Your task to perform on an android device: toggle improve location accuracy Image 0: 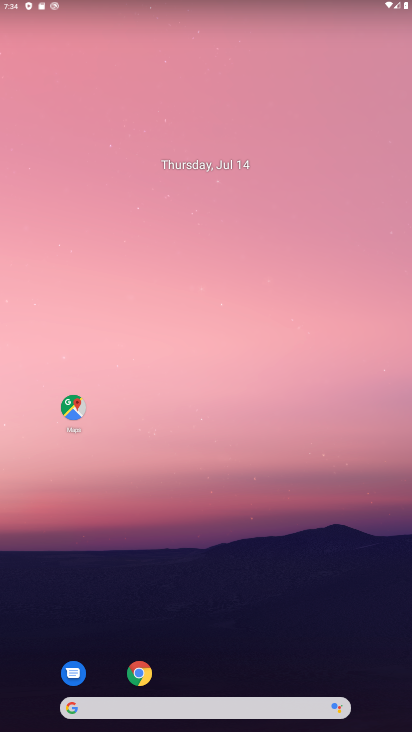
Step 0: drag from (167, 687) to (258, 344)
Your task to perform on an android device: toggle improve location accuracy Image 1: 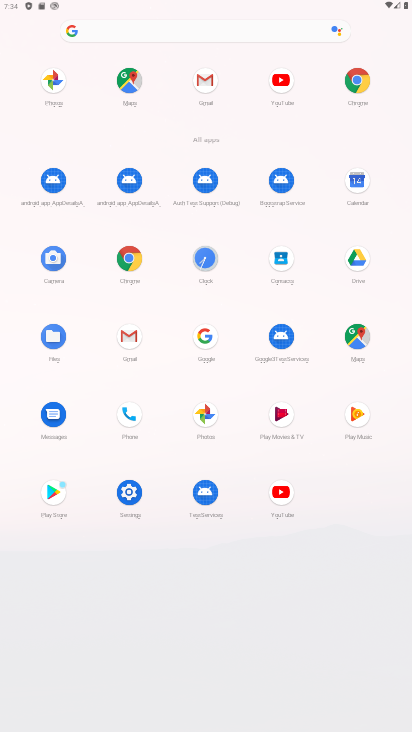
Step 1: click (121, 501)
Your task to perform on an android device: toggle improve location accuracy Image 2: 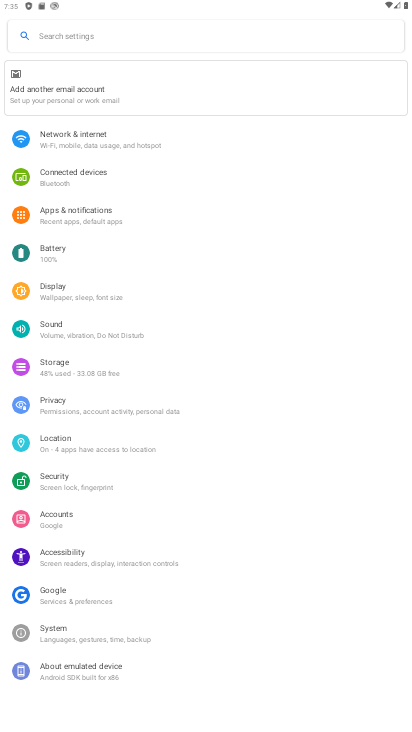
Step 2: click (50, 445)
Your task to perform on an android device: toggle improve location accuracy Image 3: 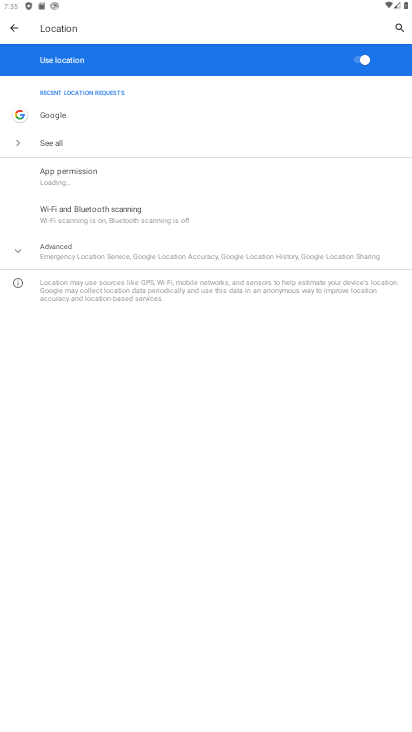
Step 3: click (93, 253)
Your task to perform on an android device: toggle improve location accuracy Image 4: 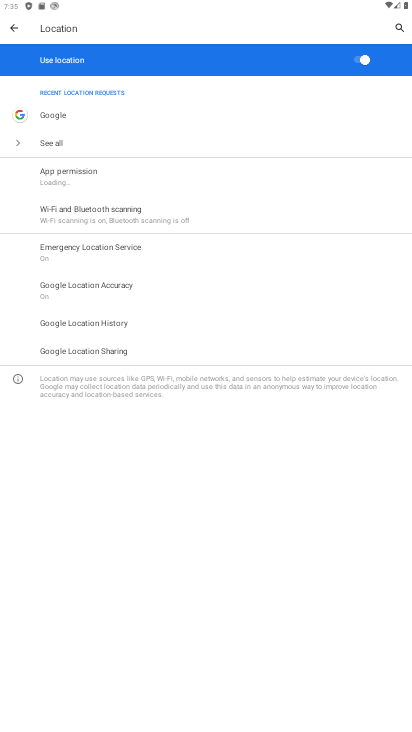
Step 4: click (113, 277)
Your task to perform on an android device: toggle improve location accuracy Image 5: 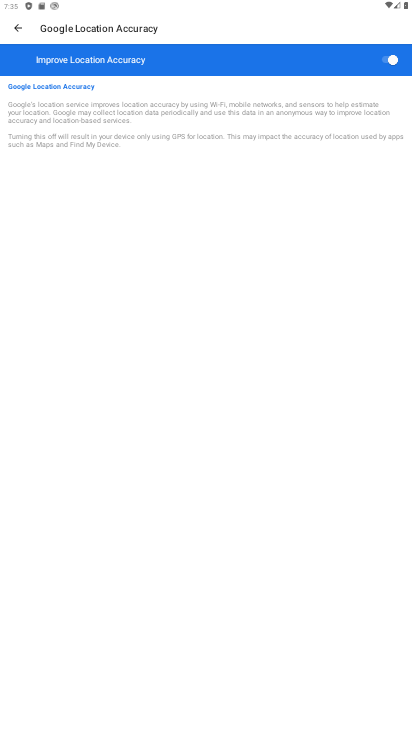
Step 5: click (393, 58)
Your task to perform on an android device: toggle improve location accuracy Image 6: 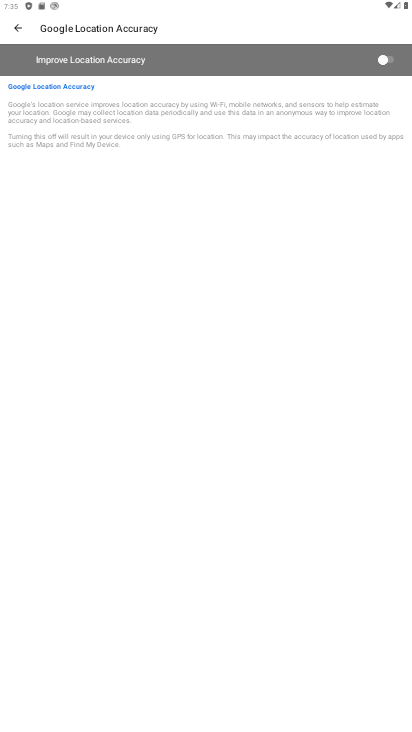
Step 6: task complete